Your task to perform on an android device: Do I have any events tomorrow? Image 0: 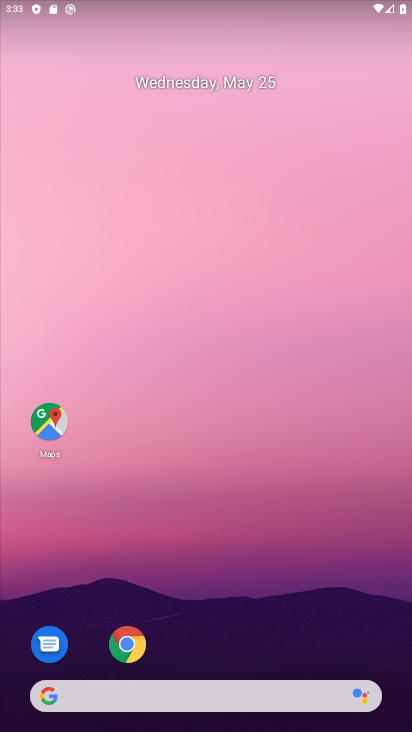
Step 0: drag from (263, 659) to (295, 23)
Your task to perform on an android device: Do I have any events tomorrow? Image 1: 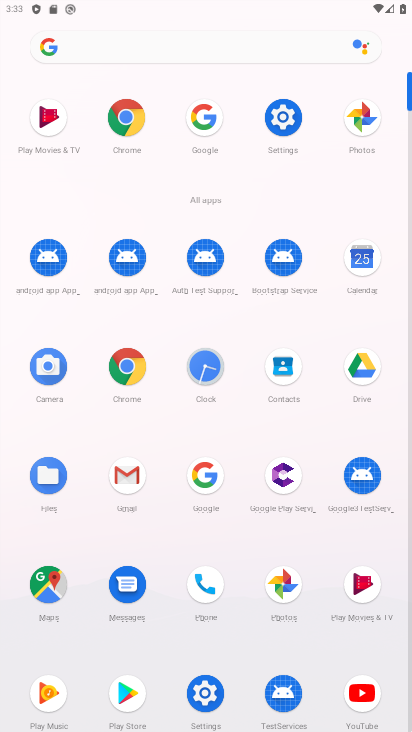
Step 1: click (362, 264)
Your task to perform on an android device: Do I have any events tomorrow? Image 2: 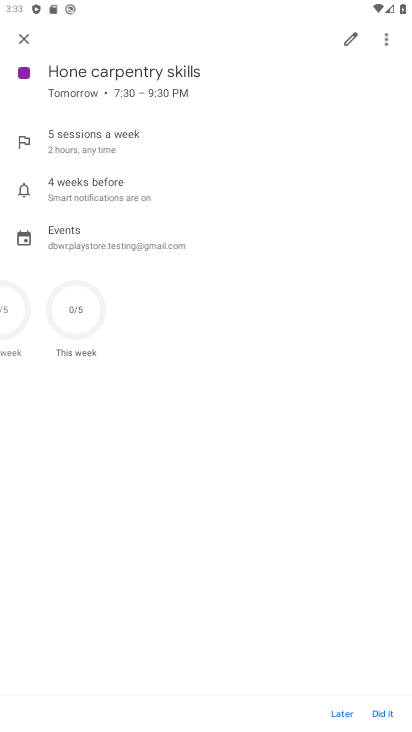
Step 2: click (15, 41)
Your task to perform on an android device: Do I have any events tomorrow? Image 3: 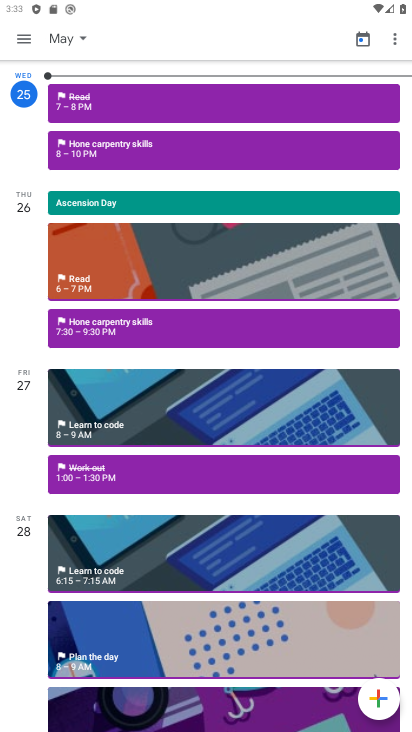
Step 3: click (107, 334)
Your task to perform on an android device: Do I have any events tomorrow? Image 4: 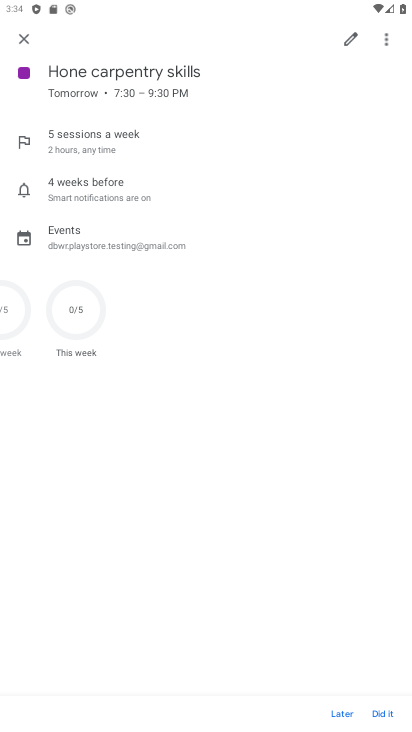
Step 4: task complete